Your task to perform on an android device: What's a good restaurant in Phoenix? Image 0: 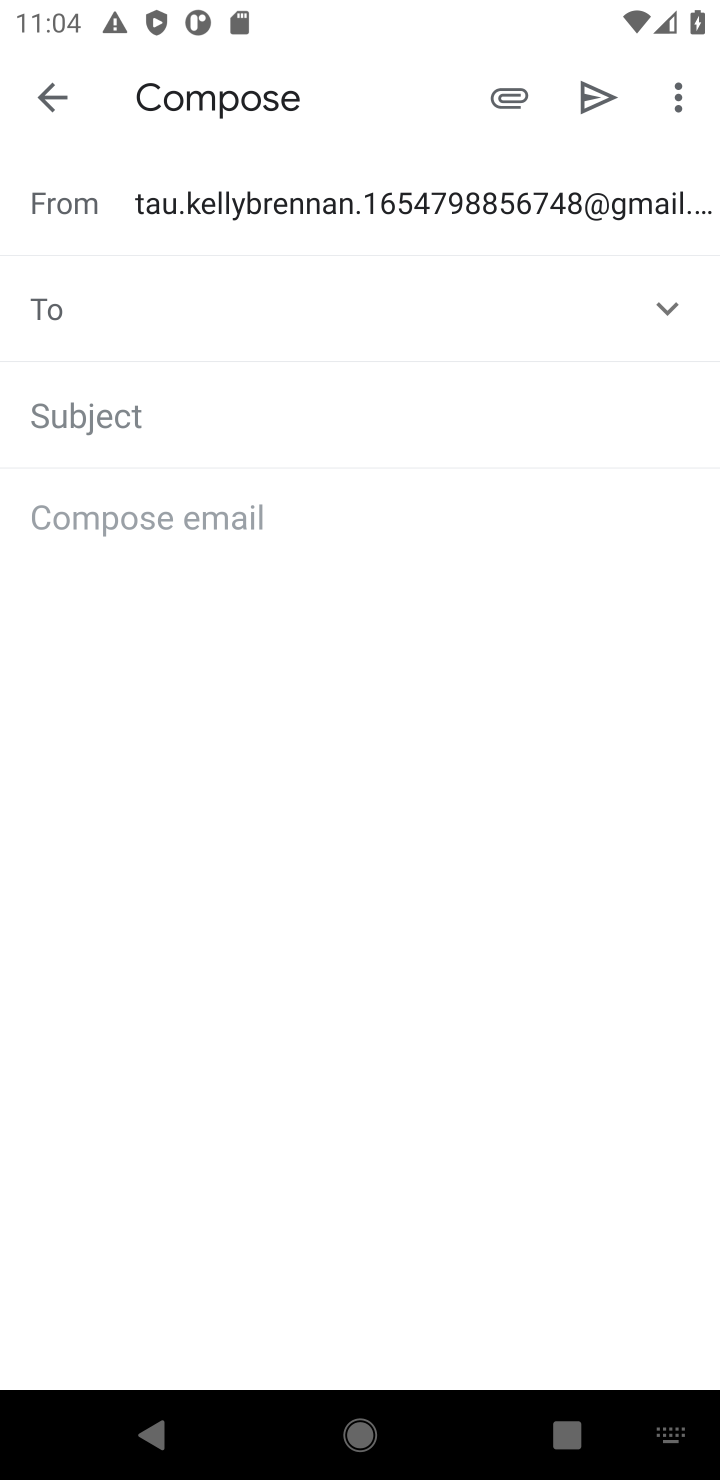
Step 0: press home button
Your task to perform on an android device: What's a good restaurant in Phoenix? Image 1: 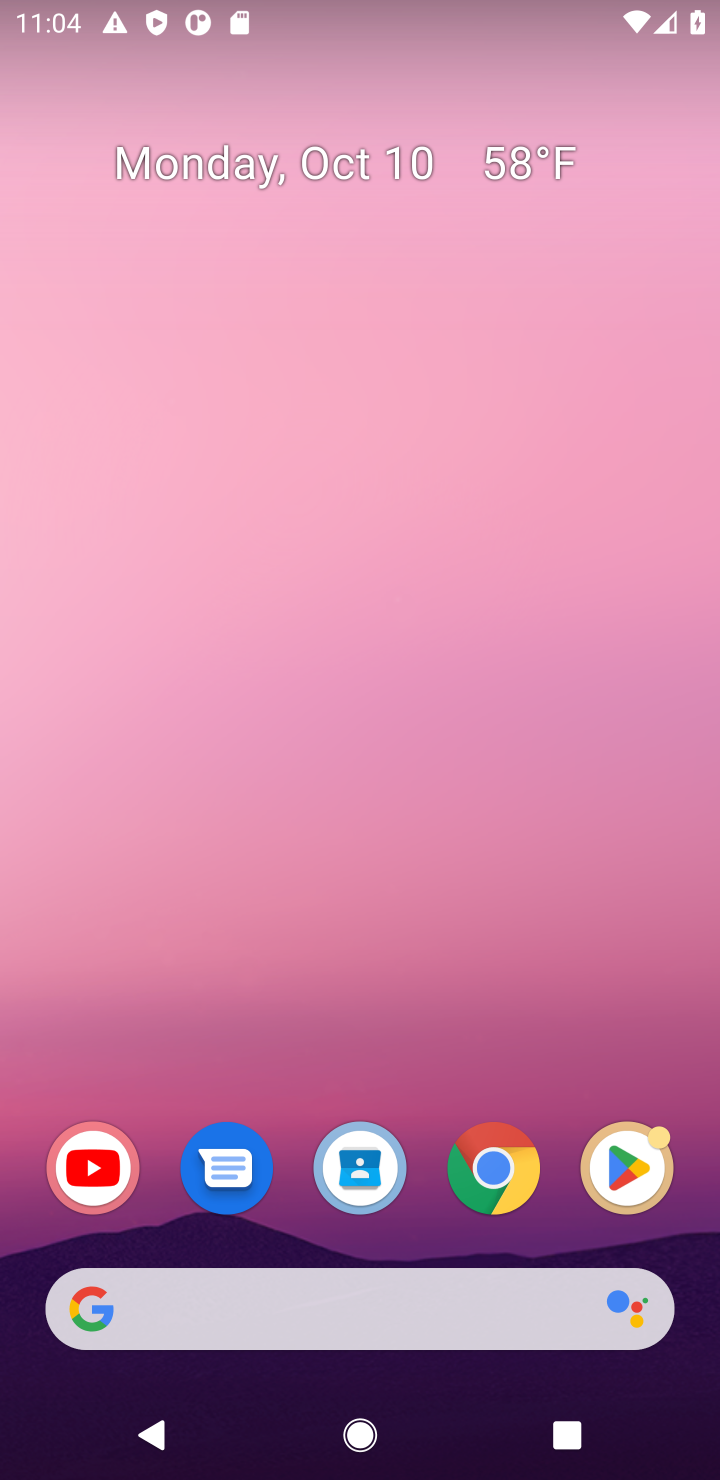
Step 1: click (389, 1302)
Your task to perform on an android device: What's a good restaurant in Phoenix? Image 2: 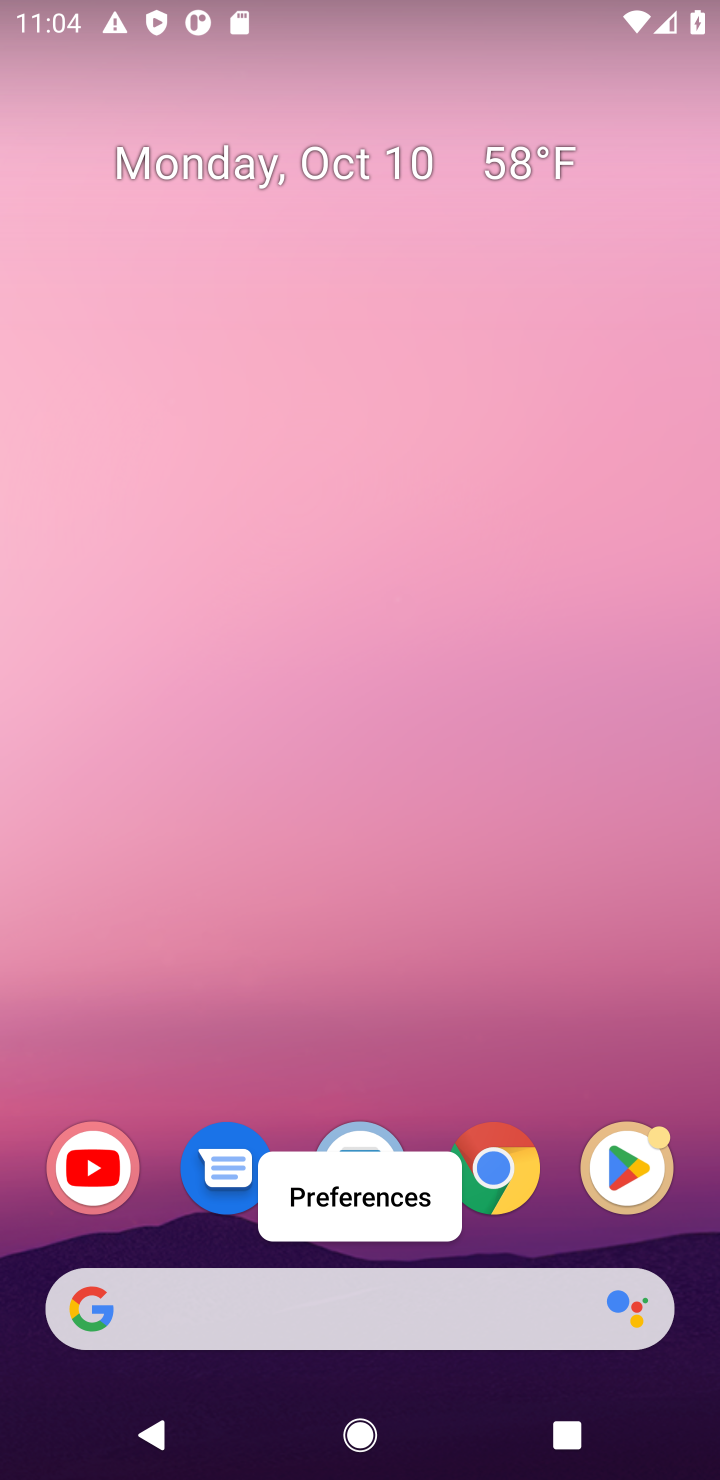
Step 2: click (282, 1298)
Your task to perform on an android device: What's a good restaurant in Phoenix? Image 3: 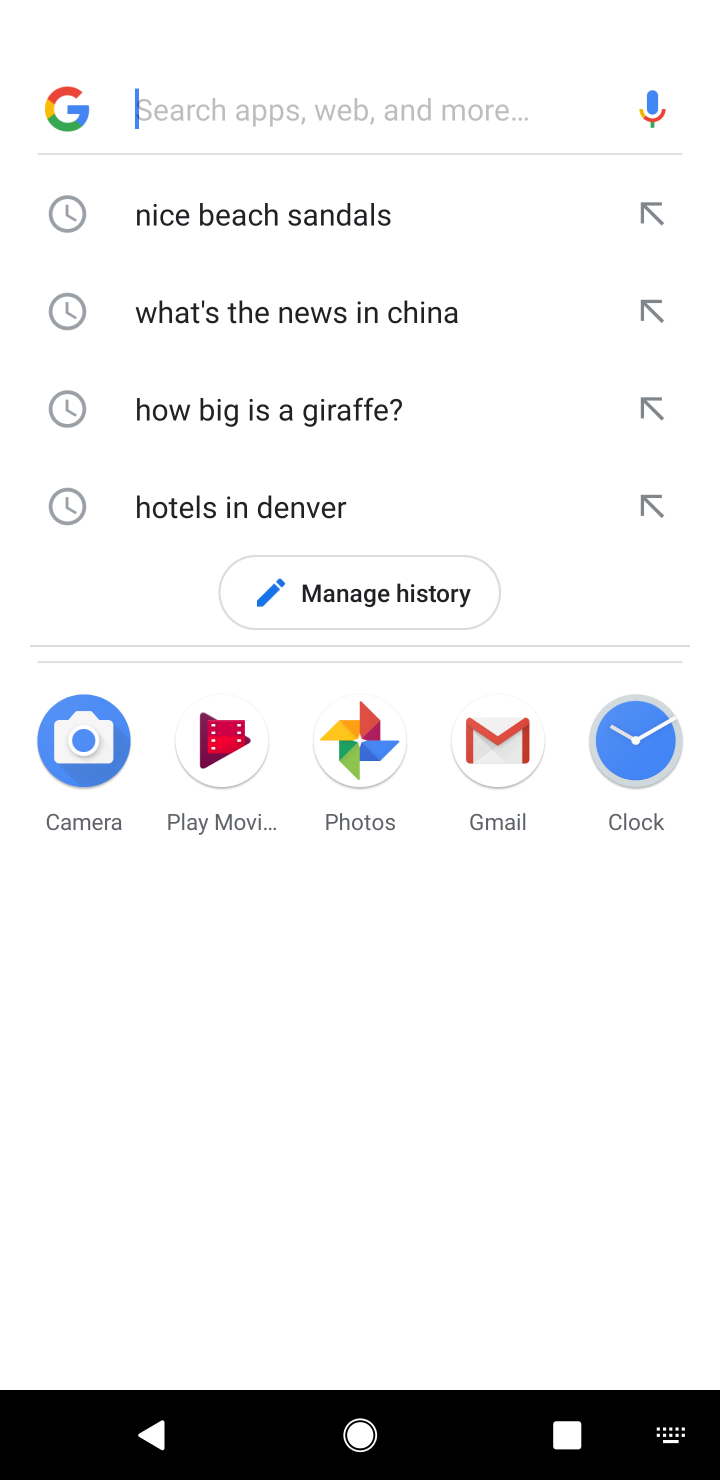
Step 3: type "good restaurant in Phoenix"
Your task to perform on an android device: What's a good restaurant in Phoenix? Image 4: 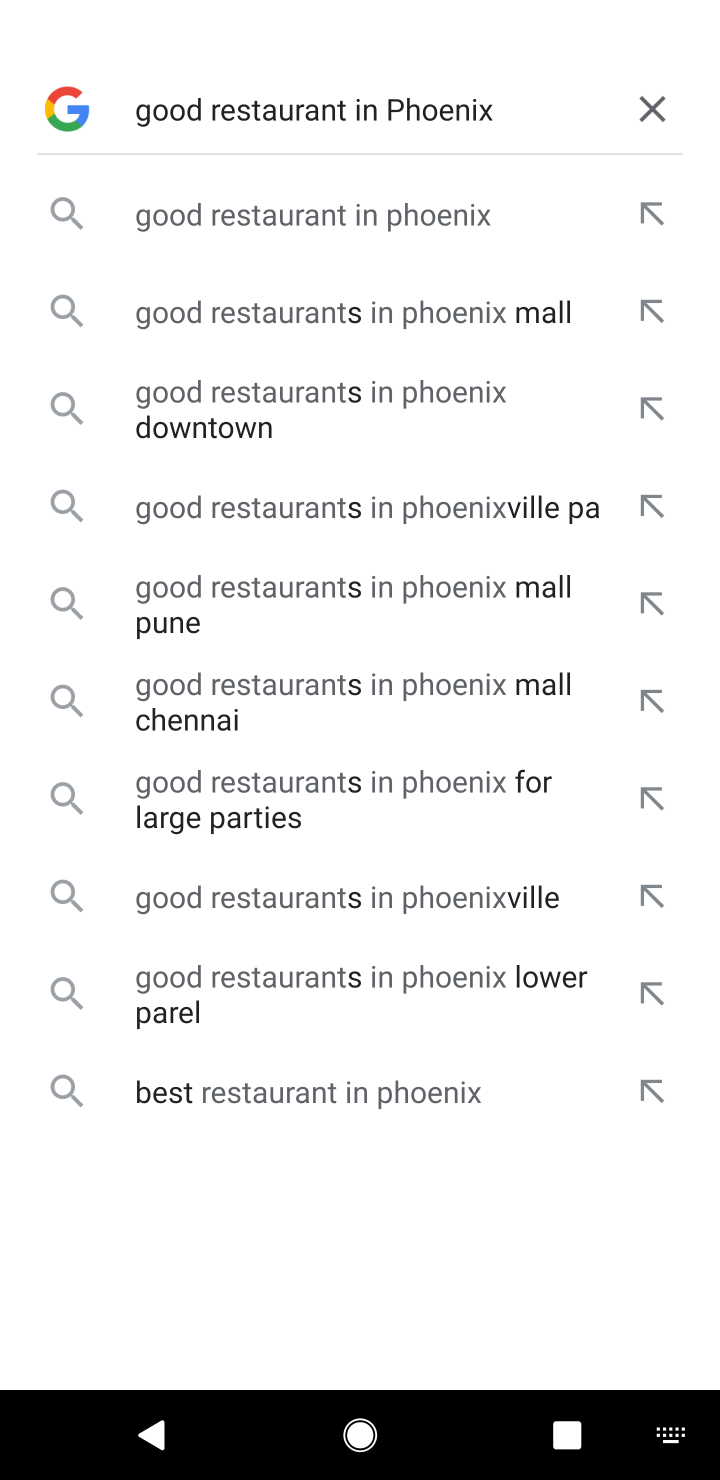
Step 4: type ""
Your task to perform on an android device: What's a good restaurant in Phoenix? Image 5: 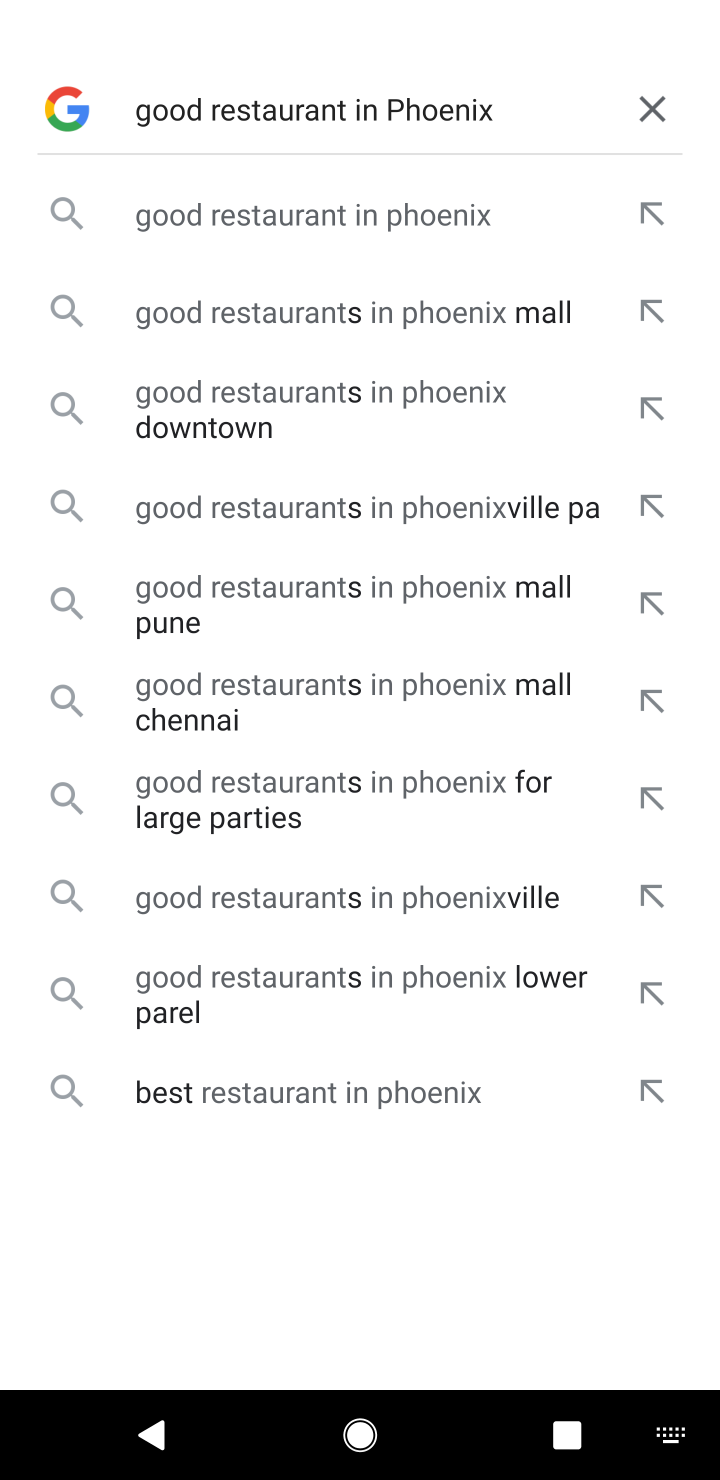
Step 5: click (327, 234)
Your task to perform on an android device: What's a good restaurant in Phoenix? Image 6: 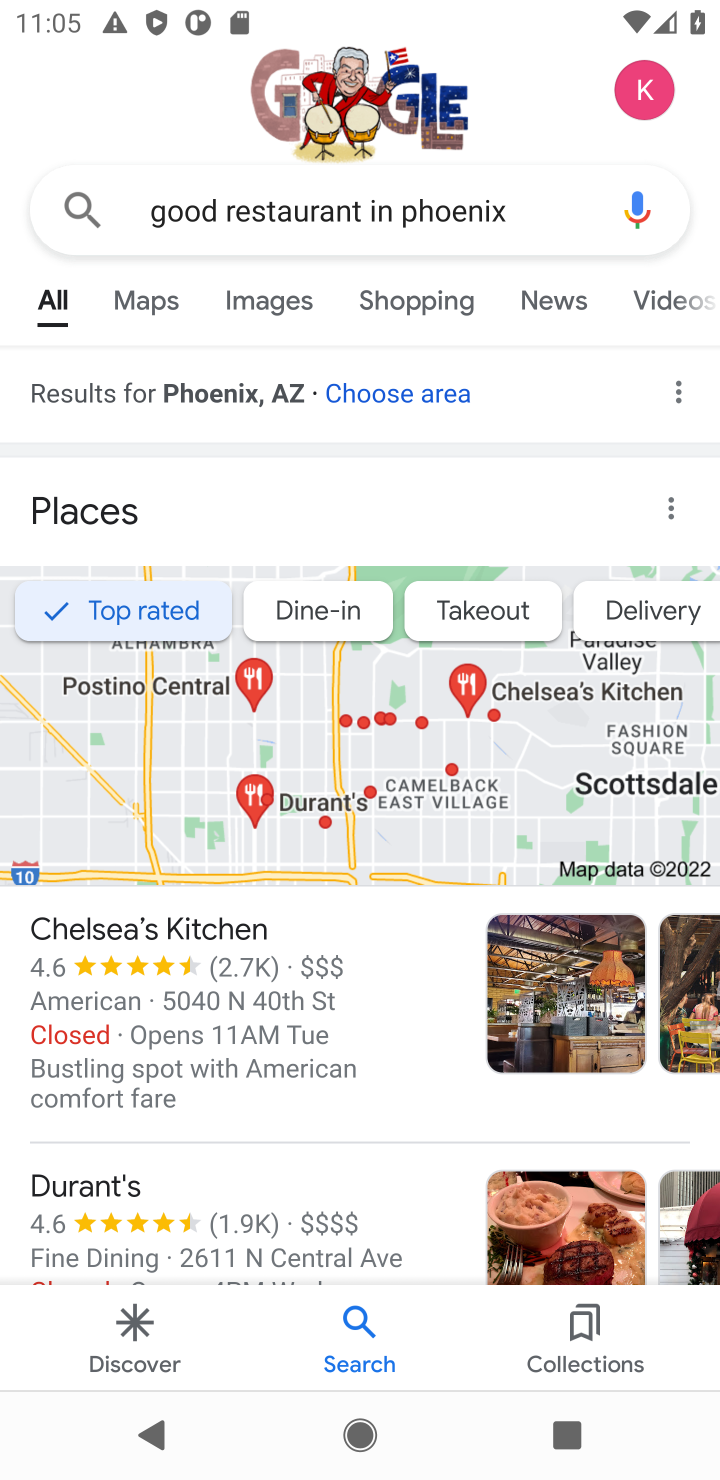
Step 6: task complete